Your task to perform on an android device: Open network settings Image 0: 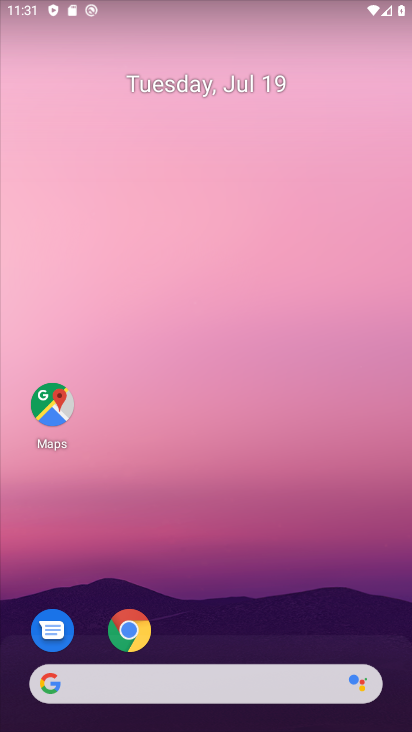
Step 0: drag from (237, 584) to (188, 175)
Your task to perform on an android device: Open network settings Image 1: 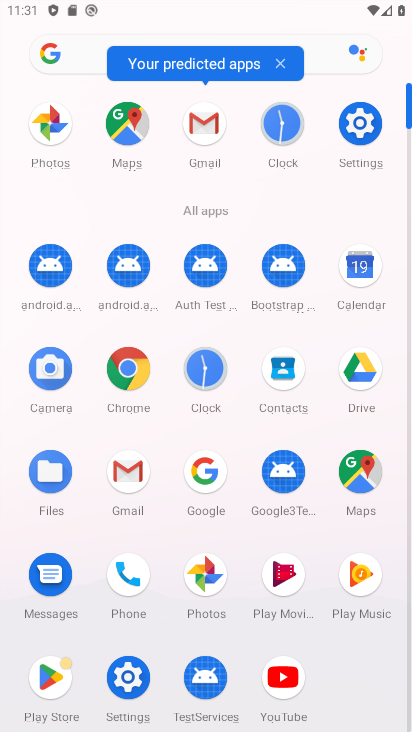
Step 1: click (125, 678)
Your task to perform on an android device: Open network settings Image 2: 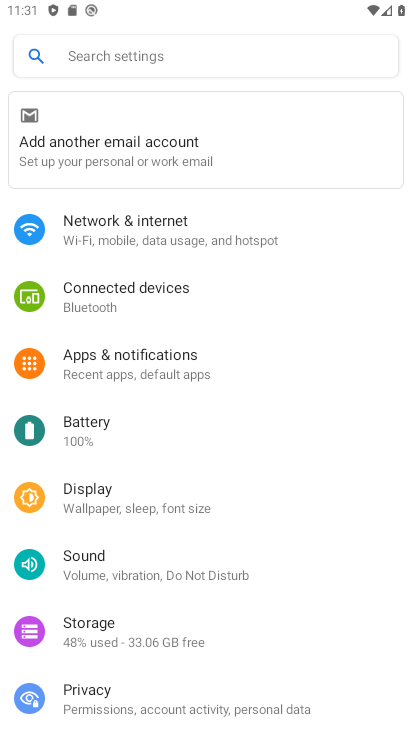
Step 2: click (101, 220)
Your task to perform on an android device: Open network settings Image 3: 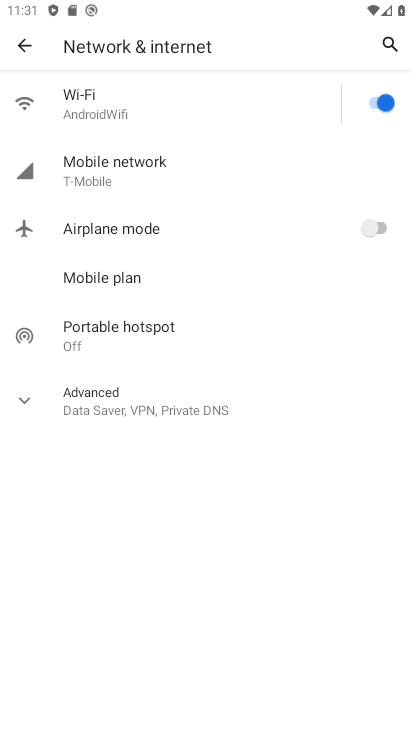
Step 3: task complete